Your task to perform on an android device: set the timer Image 0: 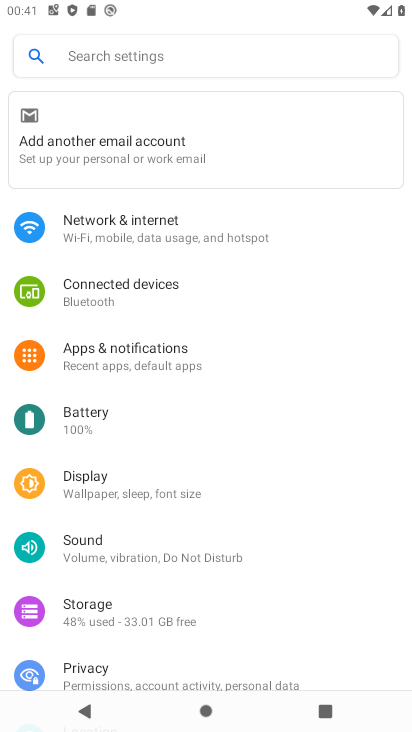
Step 0: press home button
Your task to perform on an android device: set the timer Image 1: 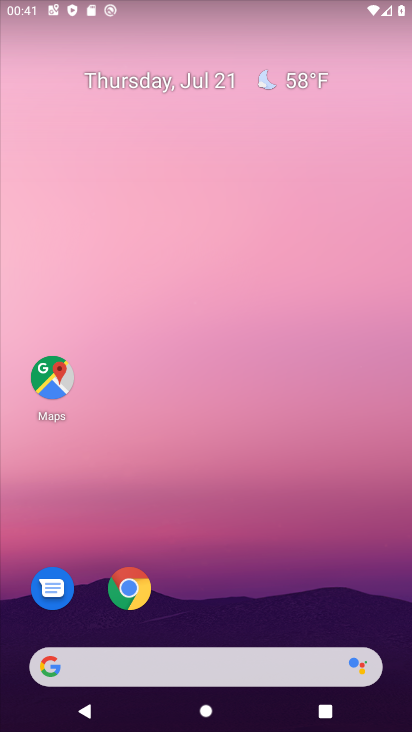
Step 1: drag from (221, 506) to (213, 11)
Your task to perform on an android device: set the timer Image 2: 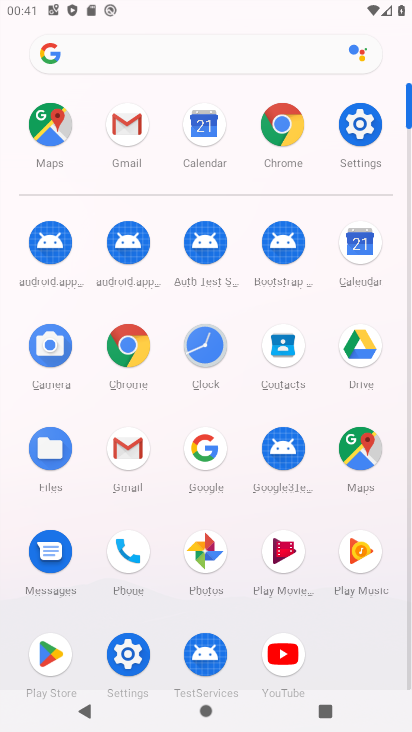
Step 2: click (213, 353)
Your task to perform on an android device: set the timer Image 3: 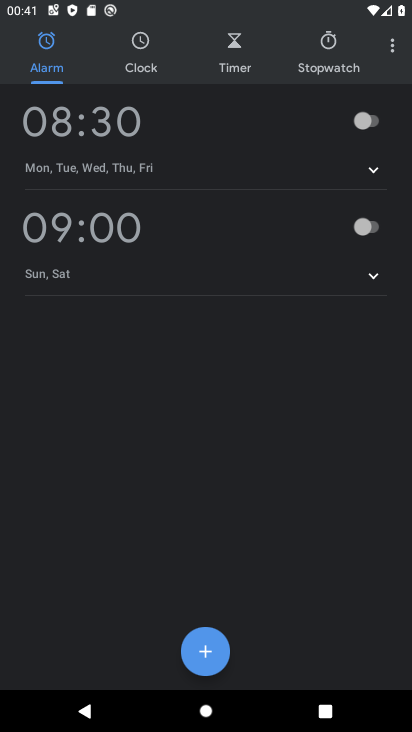
Step 3: click (245, 55)
Your task to perform on an android device: set the timer Image 4: 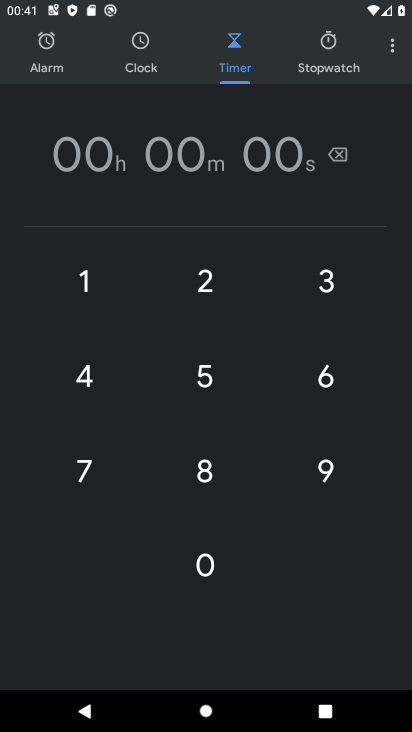
Step 4: click (209, 476)
Your task to perform on an android device: set the timer Image 5: 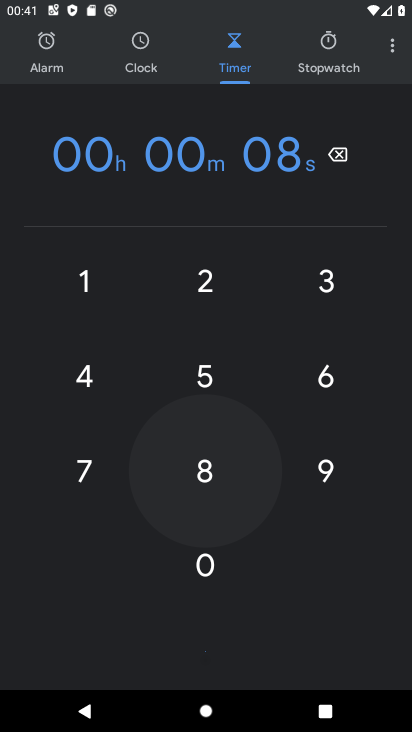
Step 5: click (84, 386)
Your task to perform on an android device: set the timer Image 6: 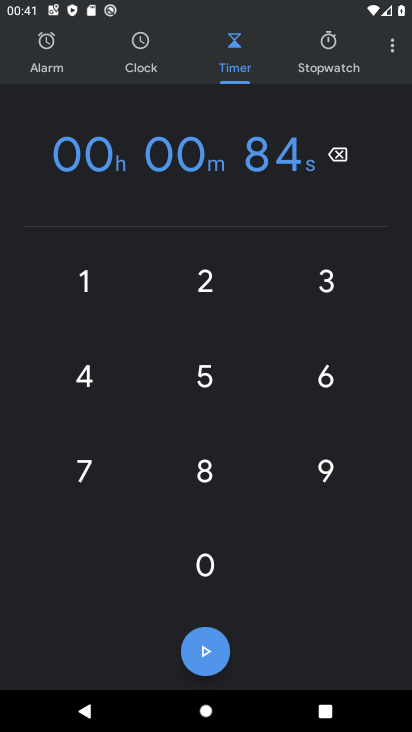
Step 6: click (310, 288)
Your task to perform on an android device: set the timer Image 7: 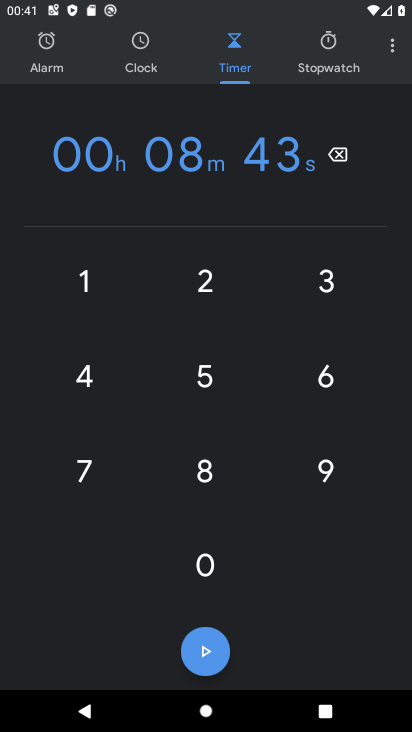
Step 7: click (197, 652)
Your task to perform on an android device: set the timer Image 8: 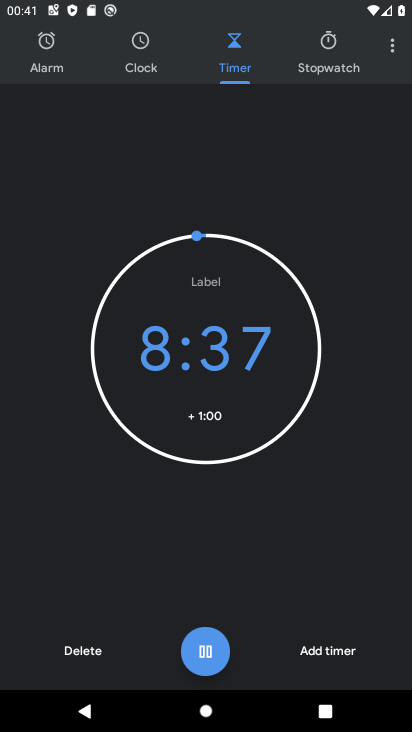
Step 8: task complete